Your task to perform on an android device: What's the weather going to be tomorrow? Image 0: 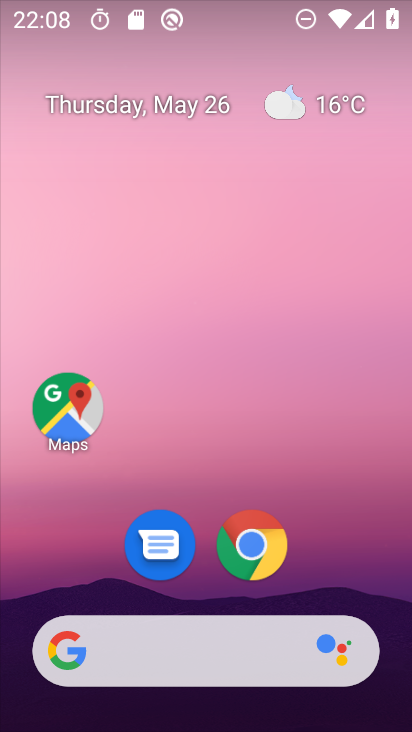
Step 0: drag from (321, 555) to (319, 93)
Your task to perform on an android device: What's the weather going to be tomorrow? Image 1: 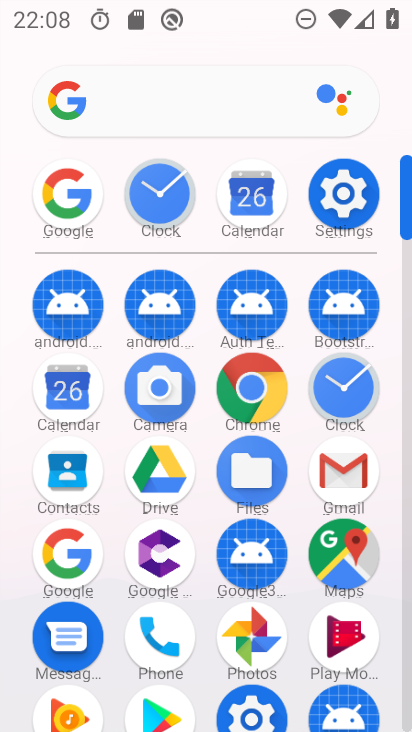
Step 1: click (74, 558)
Your task to perform on an android device: What's the weather going to be tomorrow? Image 2: 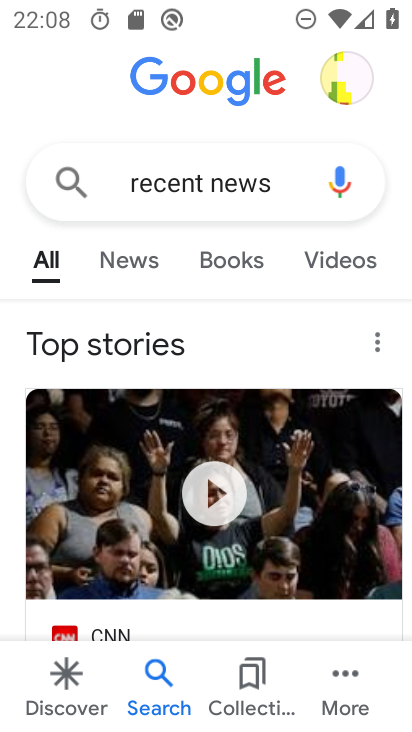
Step 2: click (287, 187)
Your task to perform on an android device: What's the weather going to be tomorrow? Image 3: 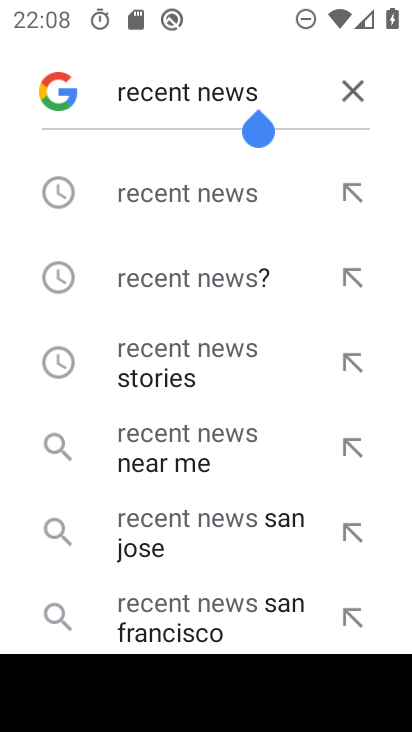
Step 3: click (353, 95)
Your task to perform on an android device: What's the weather going to be tomorrow? Image 4: 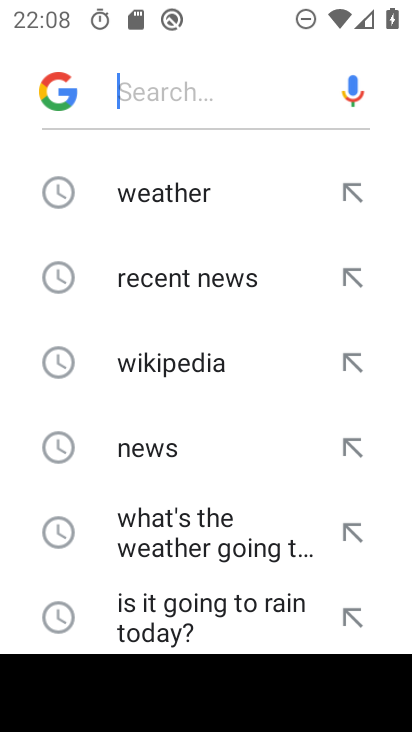
Step 4: click (216, 551)
Your task to perform on an android device: What's the weather going to be tomorrow? Image 5: 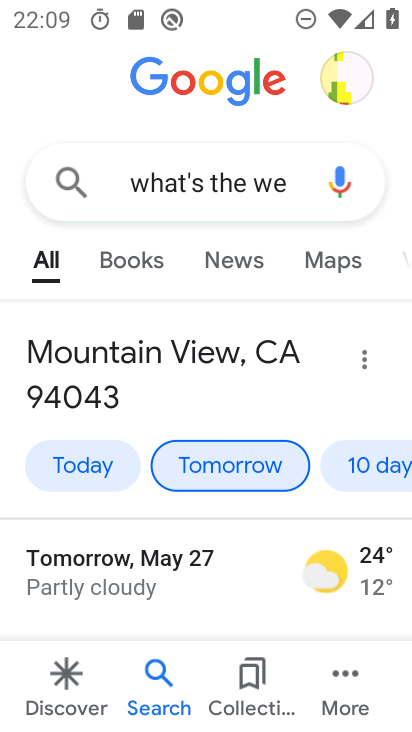
Step 5: task complete